Your task to perform on an android device: Add "razer blackwidow" to the cart on amazon, then select checkout. Image 0: 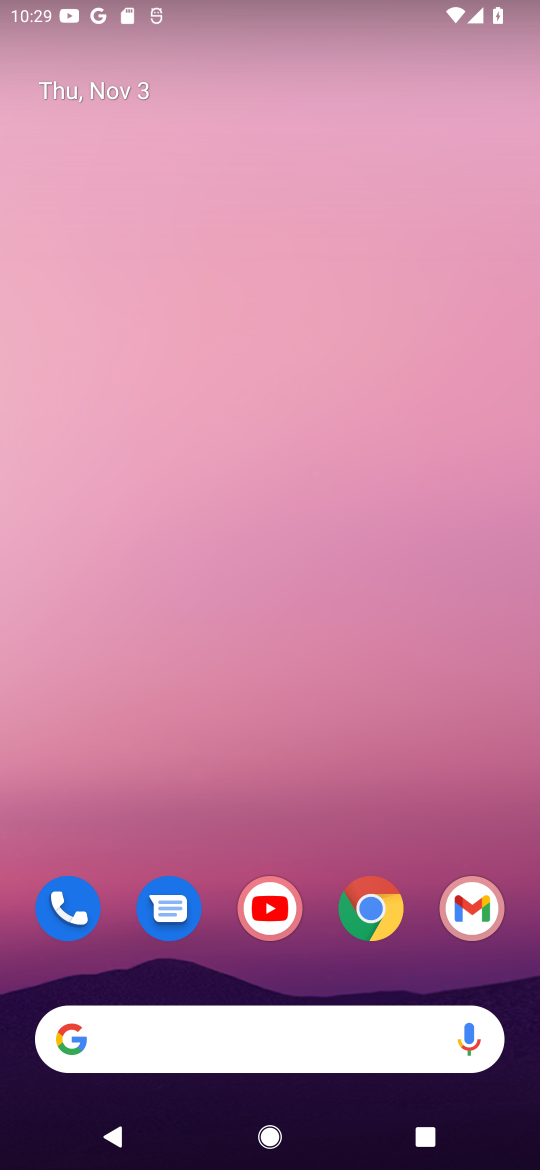
Step 0: click (372, 916)
Your task to perform on an android device: Add "razer blackwidow" to the cart on amazon, then select checkout. Image 1: 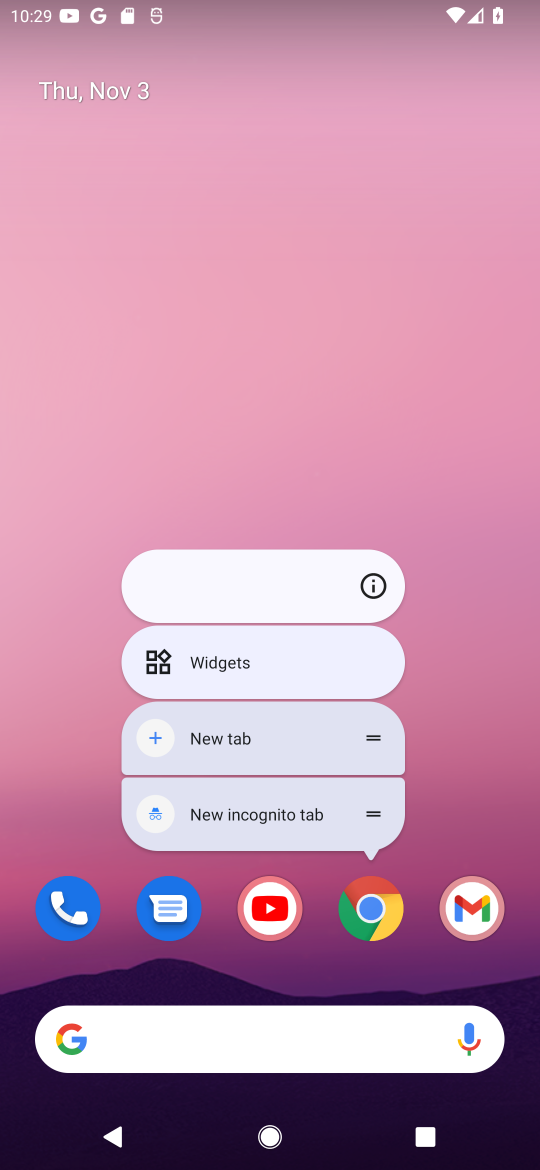
Step 1: click (379, 916)
Your task to perform on an android device: Add "razer blackwidow" to the cart on amazon, then select checkout. Image 2: 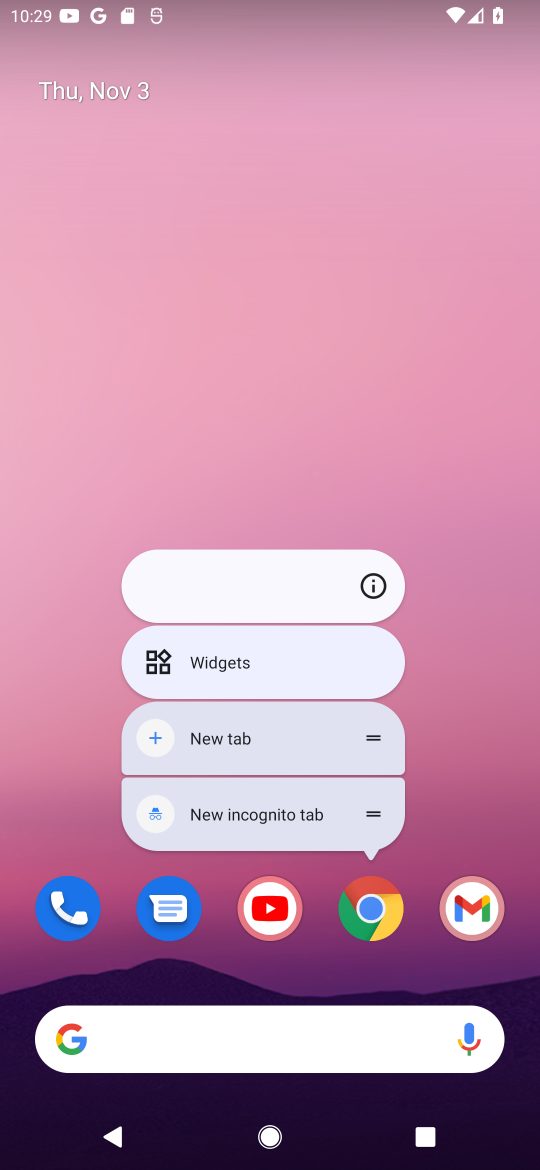
Step 2: click (379, 916)
Your task to perform on an android device: Add "razer blackwidow" to the cart on amazon, then select checkout. Image 3: 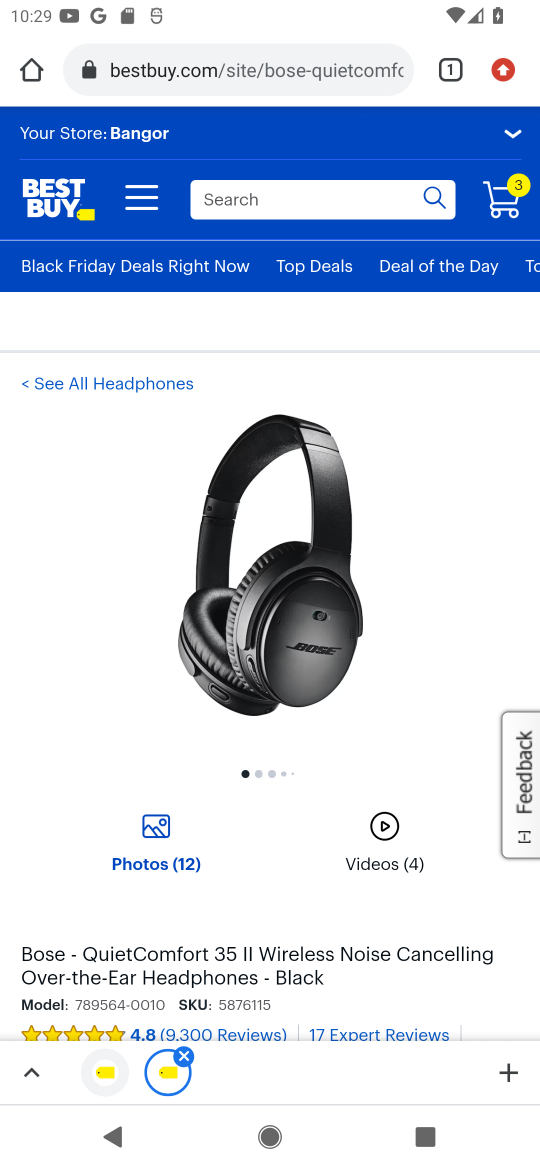
Step 3: click (321, 76)
Your task to perform on an android device: Add "razer blackwidow" to the cart on amazon, then select checkout. Image 4: 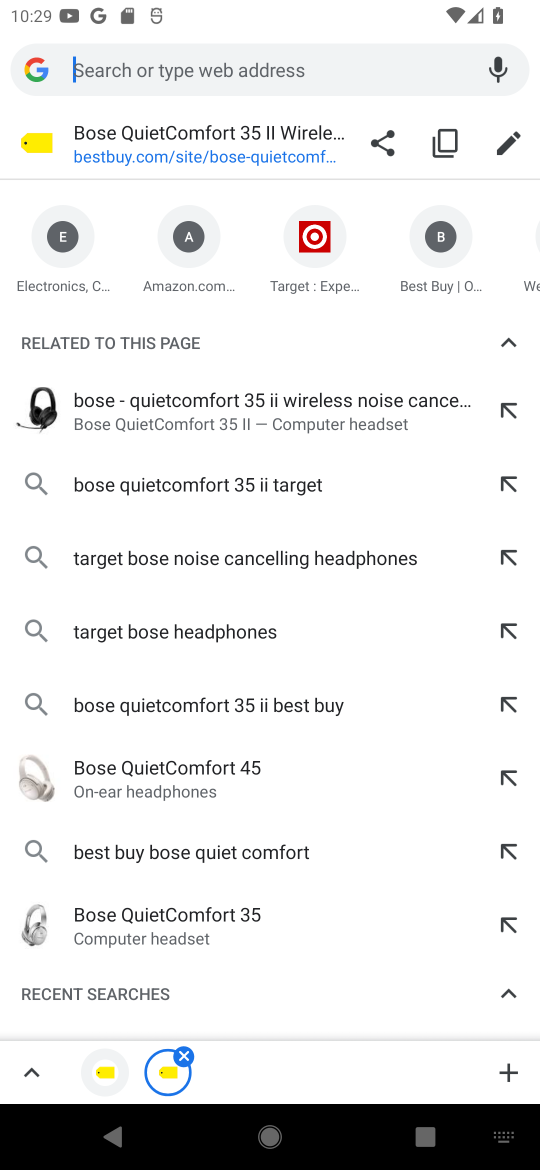
Step 4: click (192, 237)
Your task to perform on an android device: Add "razer blackwidow" to the cart on amazon, then select checkout. Image 5: 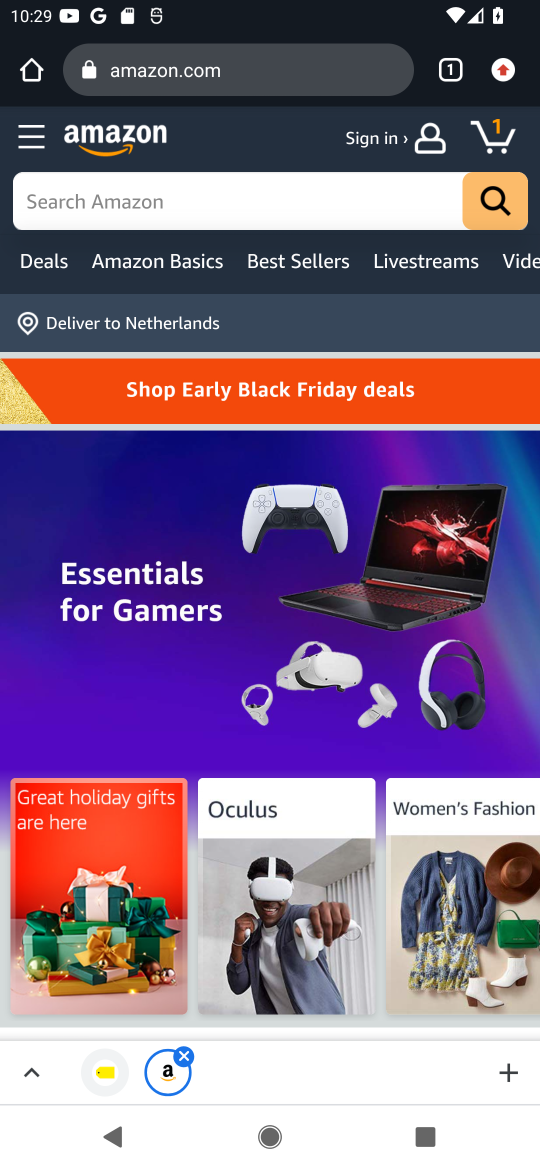
Step 5: click (231, 194)
Your task to perform on an android device: Add "razer blackwidow" to the cart on amazon, then select checkout. Image 6: 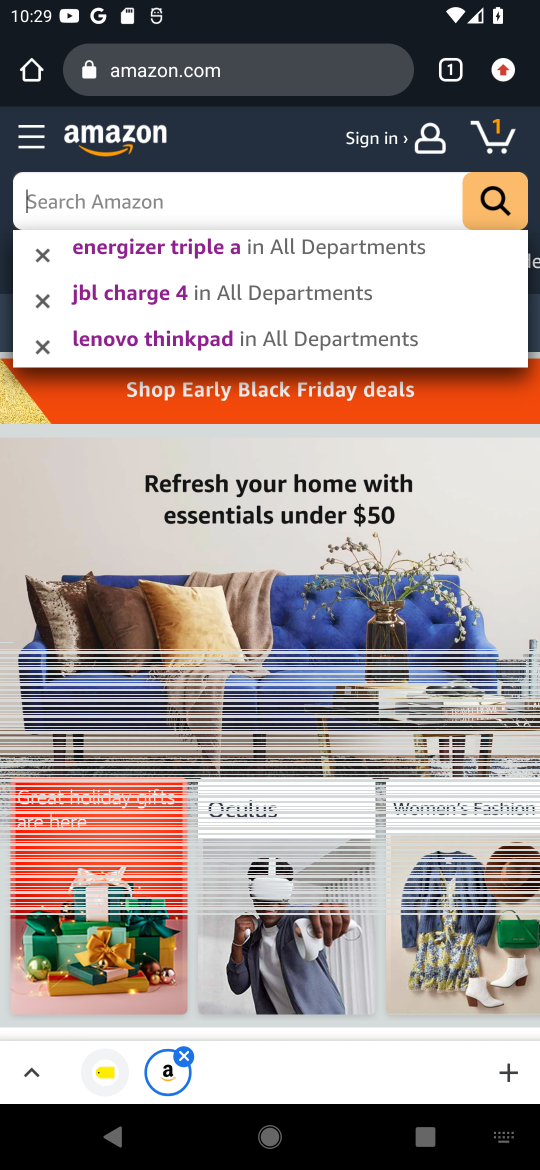
Step 6: press enter
Your task to perform on an android device: Add "razer blackwidow" to the cart on amazon, then select checkout. Image 7: 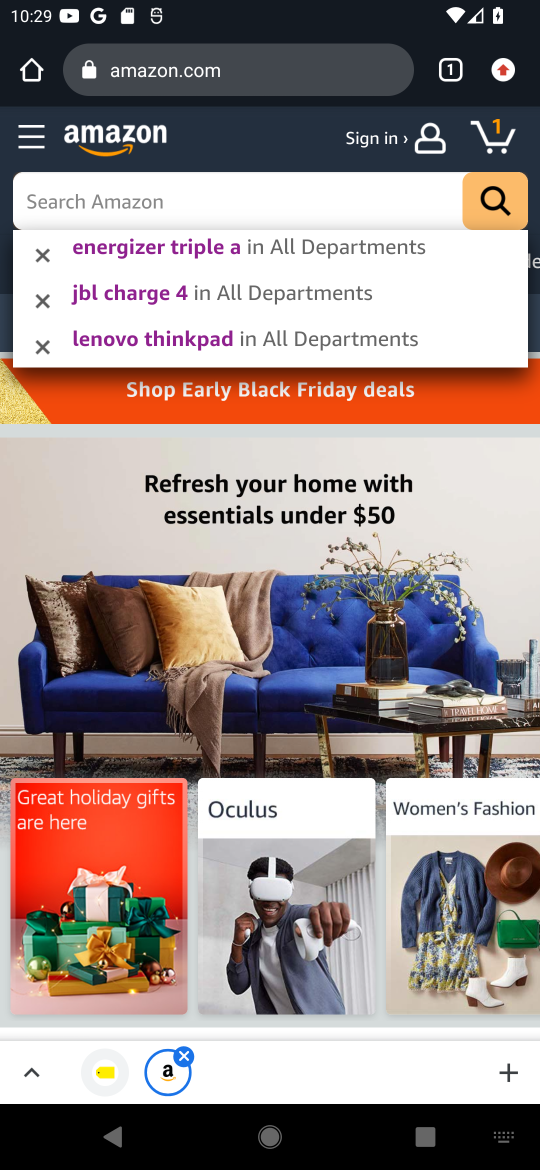
Step 7: type "razer blackwidow"
Your task to perform on an android device: Add "razer blackwidow" to the cart on amazon, then select checkout. Image 8: 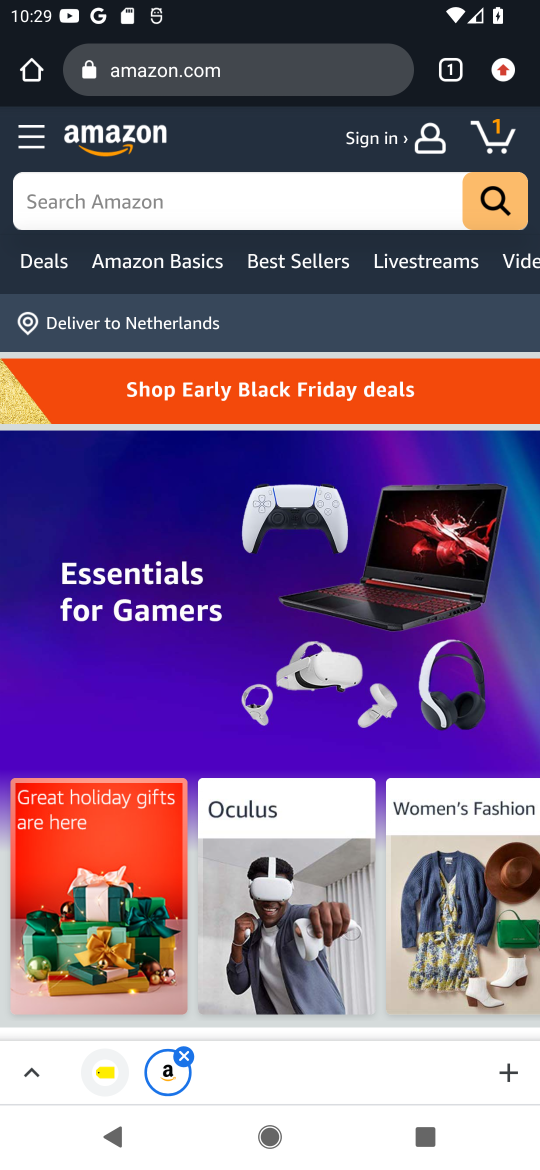
Step 8: click (232, 200)
Your task to perform on an android device: Add "razer blackwidow" to the cart on amazon, then select checkout. Image 9: 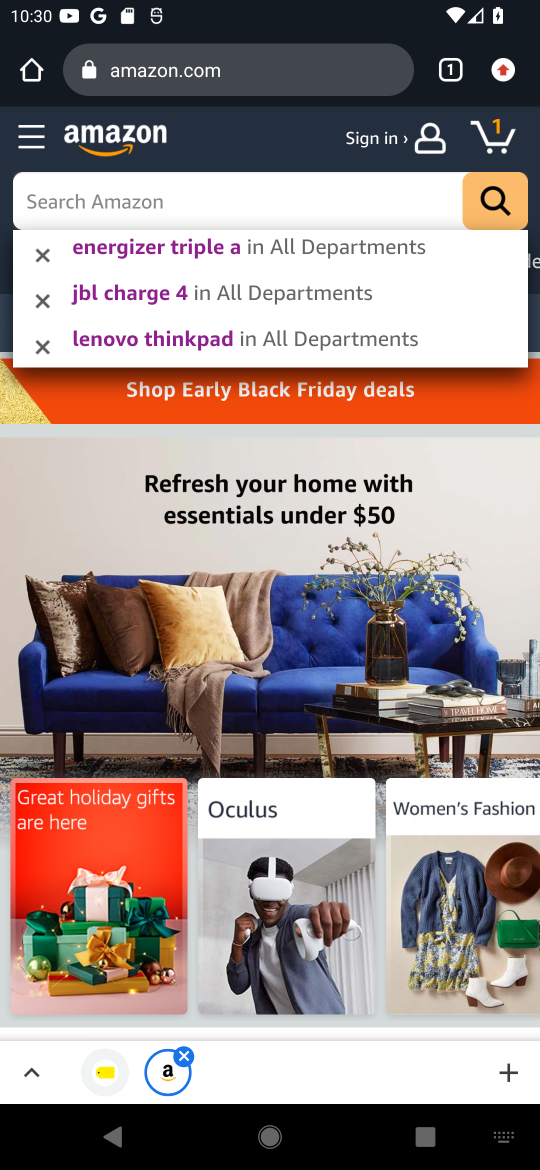
Step 9: press enter
Your task to perform on an android device: Add "razer blackwidow" to the cart on amazon, then select checkout. Image 10: 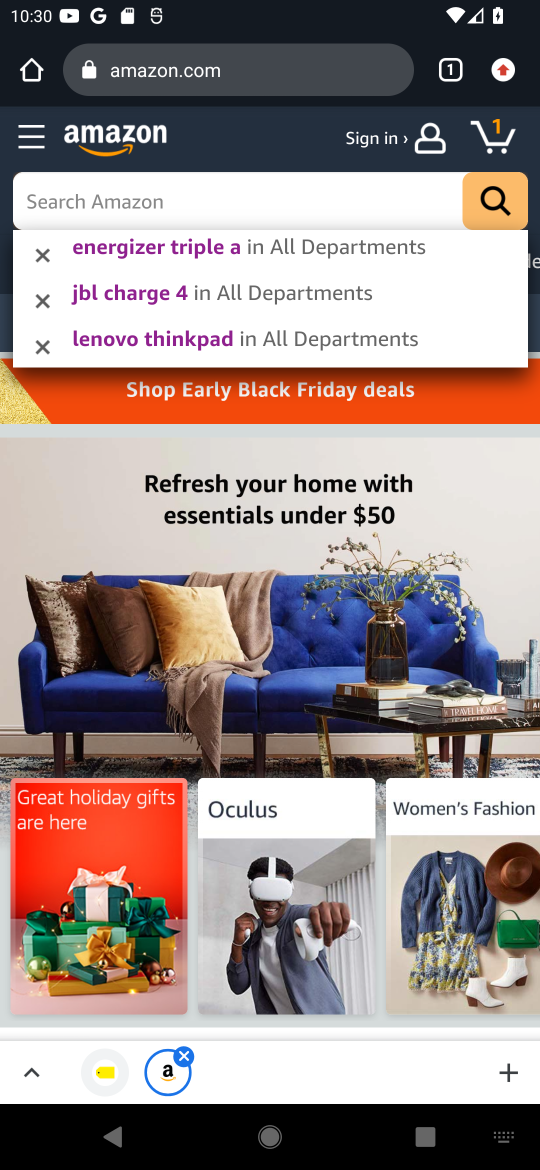
Step 10: type "razer blackwidow"
Your task to perform on an android device: Add "razer blackwidow" to the cart on amazon, then select checkout. Image 11: 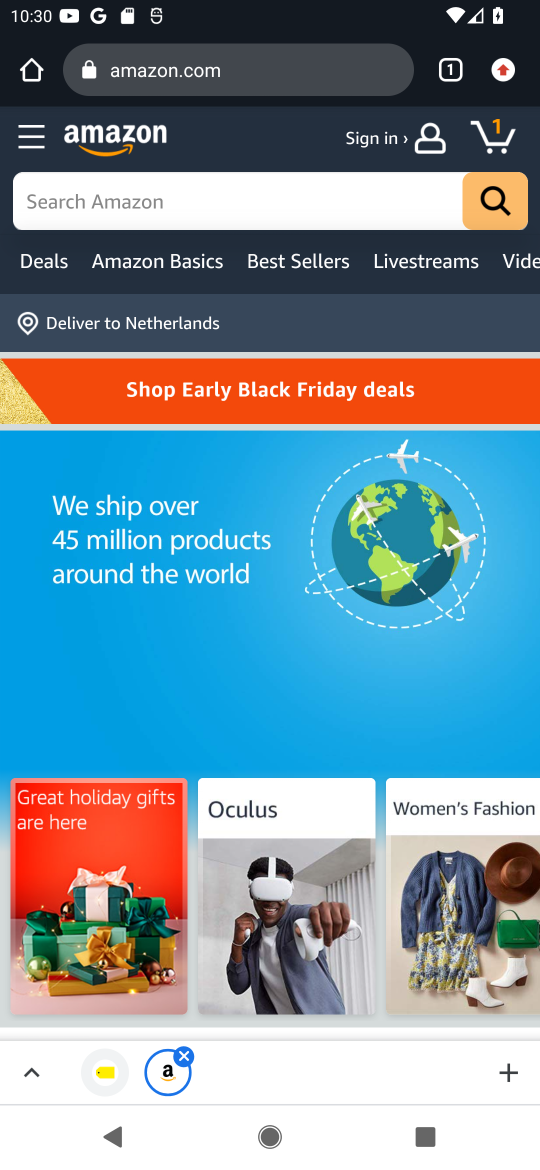
Step 11: task complete